Your task to perform on an android device: delete the emails in spam in the gmail app Image 0: 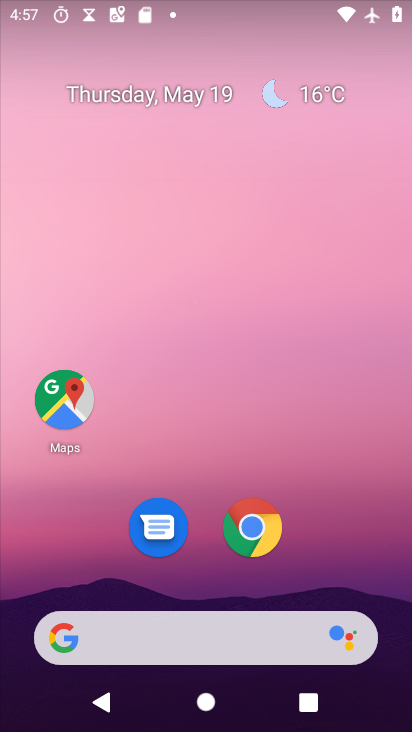
Step 0: drag from (340, 520) to (182, 69)
Your task to perform on an android device: delete the emails in spam in the gmail app Image 1: 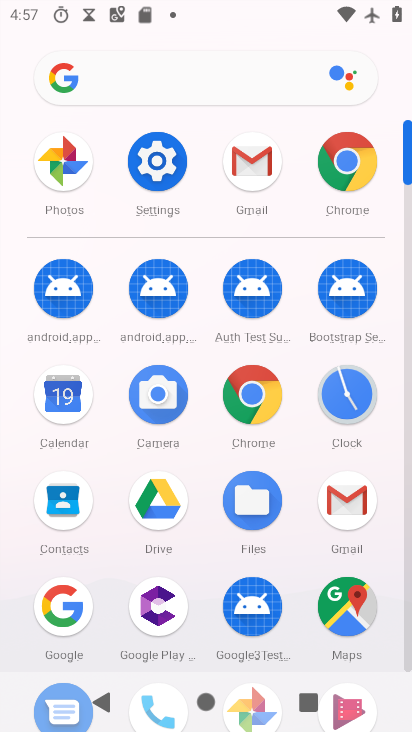
Step 1: click (255, 166)
Your task to perform on an android device: delete the emails in spam in the gmail app Image 2: 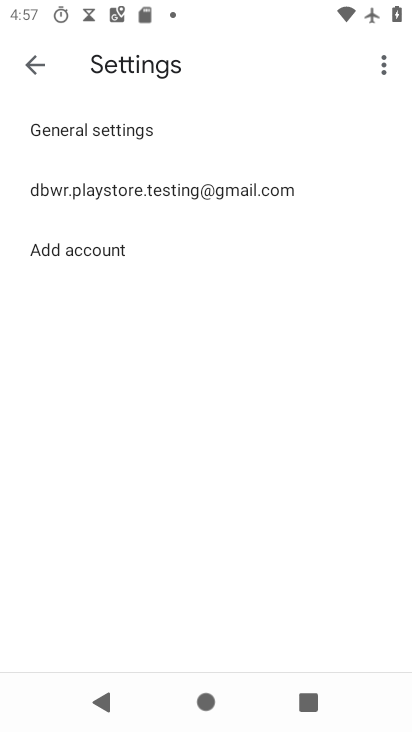
Step 2: click (29, 62)
Your task to perform on an android device: delete the emails in spam in the gmail app Image 3: 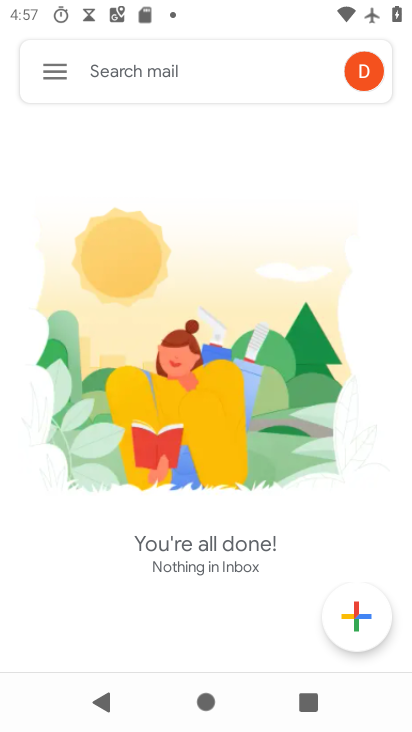
Step 3: click (64, 73)
Your task to perform on an android device: delete the emails in spam in the gmail app Image 4: 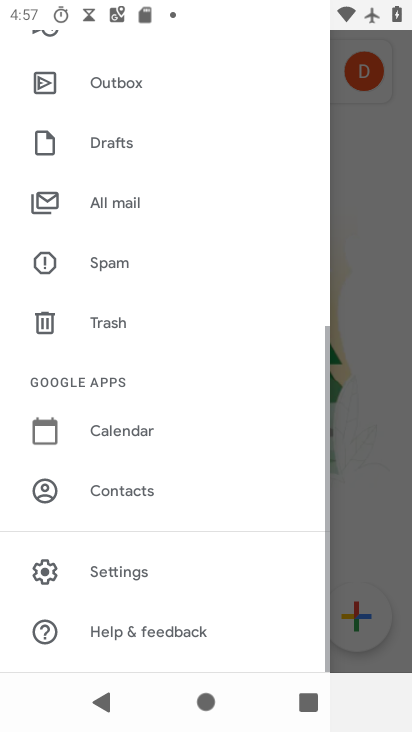
Step 4: click (155, 268)
Your task to perform on an android device: delete the emails in spam in the gmail app Image 5: 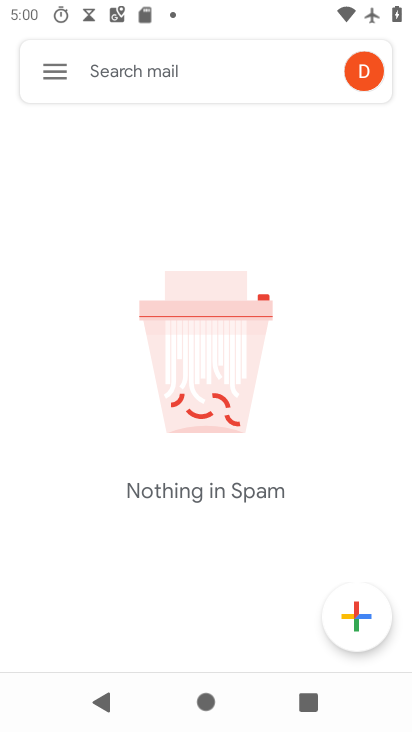
Step 5: task complete